Your task to perform on an android device: turn off airplane mode Image 0: 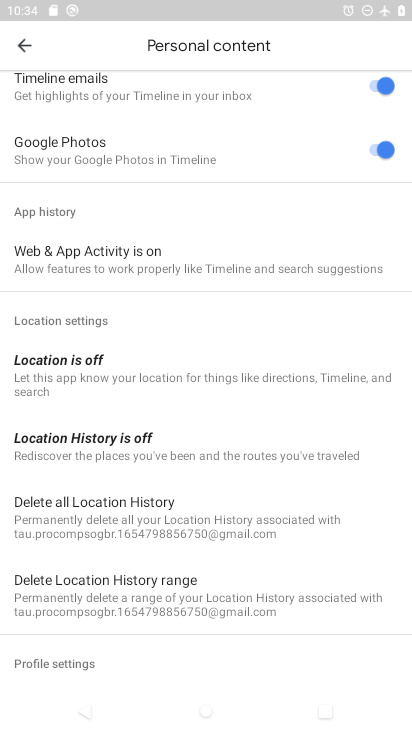
Step 0: drag from (157, 16) to (208, 550)
Your task to perform on an android device: turn off airplane mode Image 1: 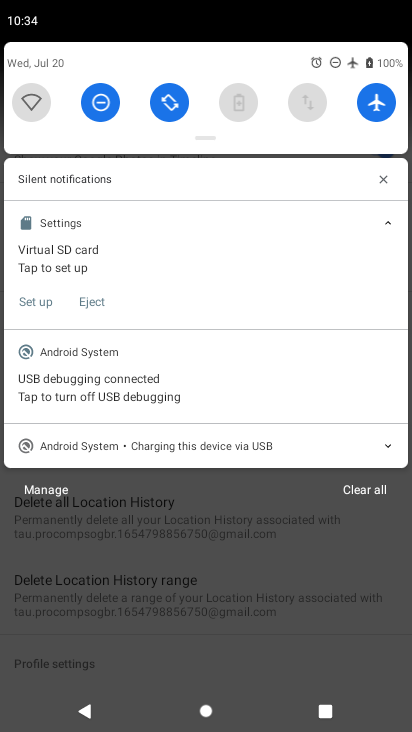
Step 1: click (387, 111)
Your task to perform on an android device: turn off airplane mode Image 2: 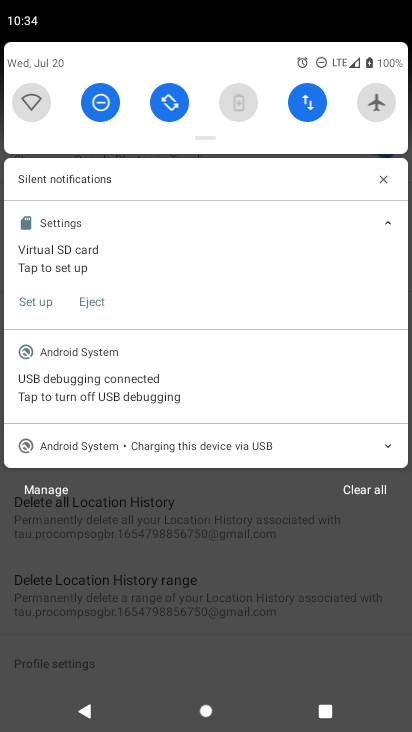
Step 2: task complete